Your task to perform on an android device: Is it going to rain today? Image 0: 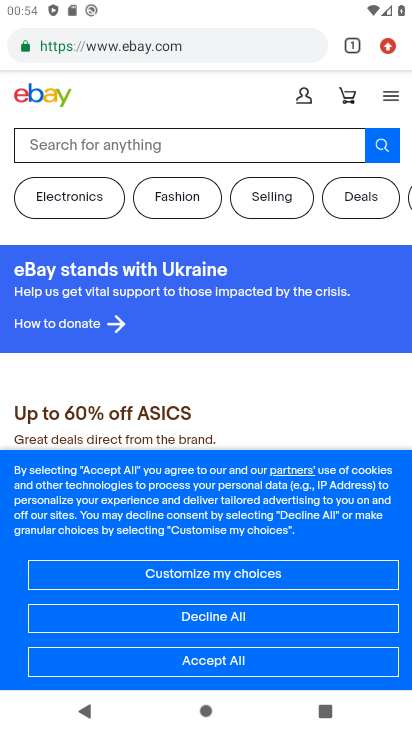
Step 0: press back button
Your task to perform on an android device: Is it going to rain today? Image 1: 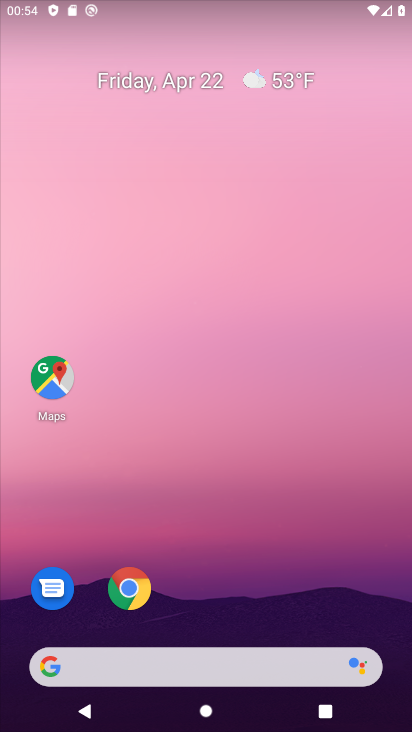
Step 1: click (269, 76)
Your task to perform on an android device: Is it going to rain today? Image 2: 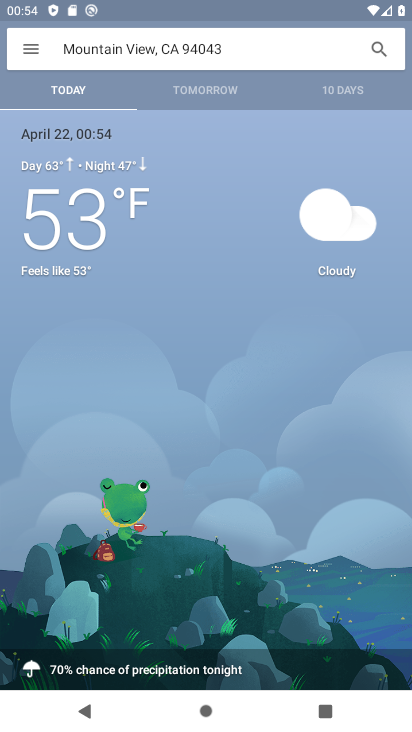
Step 2: task complete